Your task to perform on an android device: open sync settings in chrome Image 0: 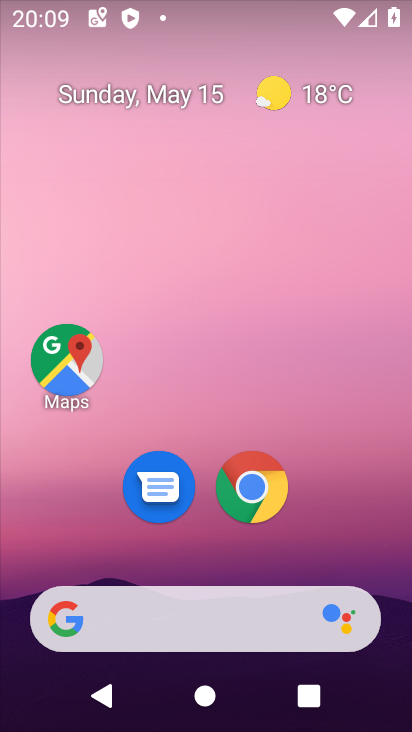
Step 0: click (256, 491)
Your task to perform on an android device: open sync settings in chrome Image 1: 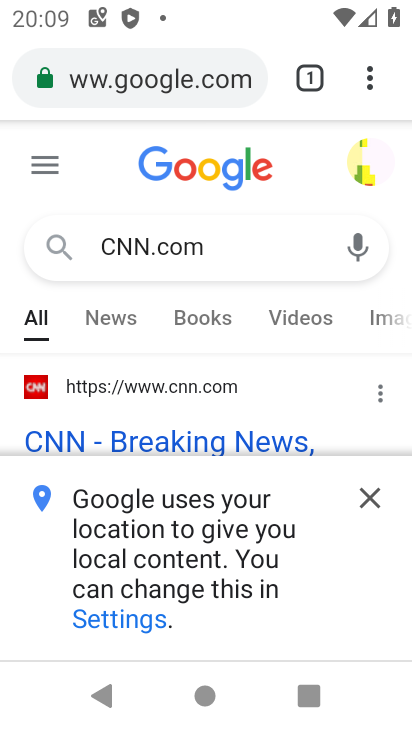
Step 1: click (369, 79)
Your task to perform on an android device: open sync settings in chrome Image 2: 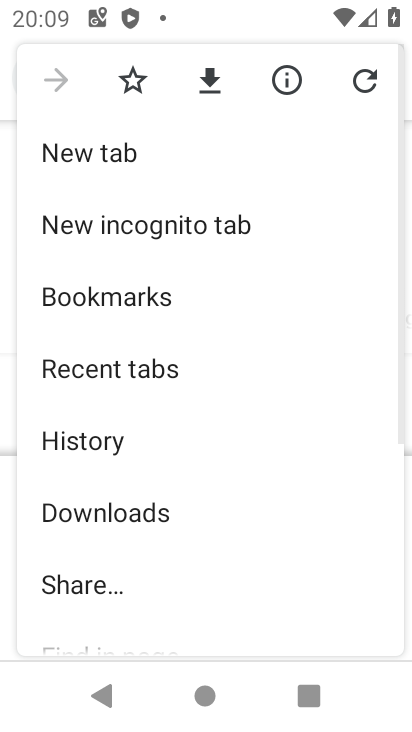
Step 2: drag from (261, 576) to (224, 359)
Your task to perform on an android device: open sync settings in chrome Image 3: 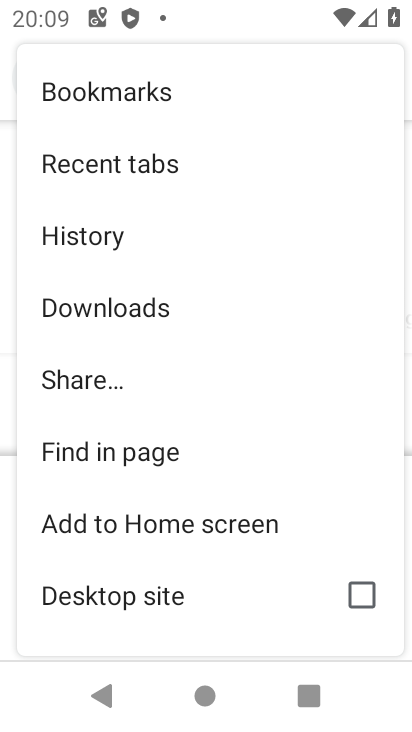
Step 3: drag from (295, 557) to (293, 379)
Your task to perform on an android device: open sync settings in chrome Image 4: 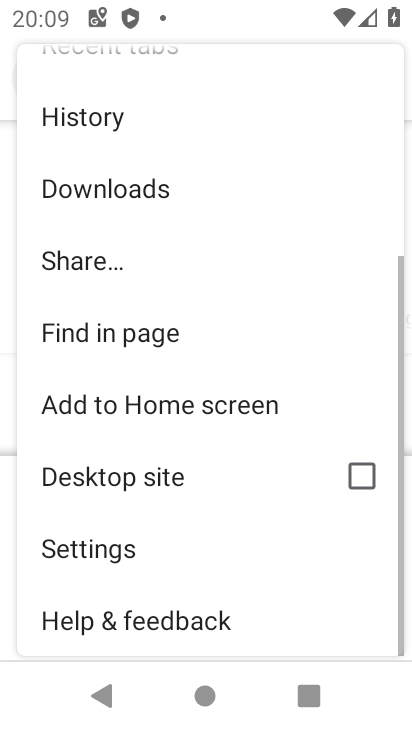
Step 4: click (109, 552)
Your task to perform on an android device: open sync settings in chrome Image 5: 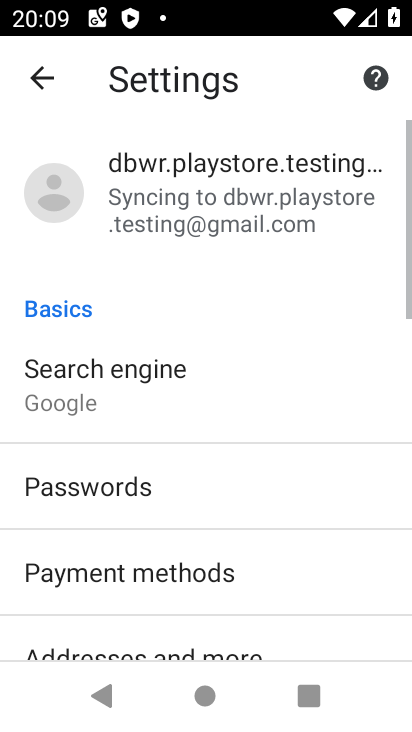
Step 5: drag from (320, 626) to (317, 307)
Your task to perform on an android device: open sync settings in chrome Image 6: 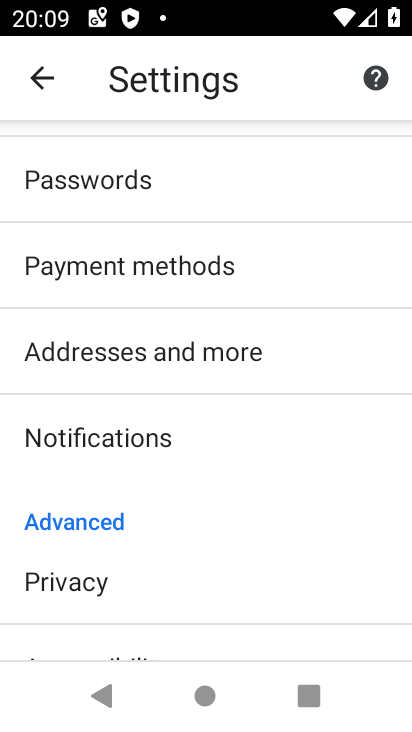
Step 6: drag from (327, 596) to (302, 321)
Your task to perform on an android device: open sync settings in chrome Image 7: 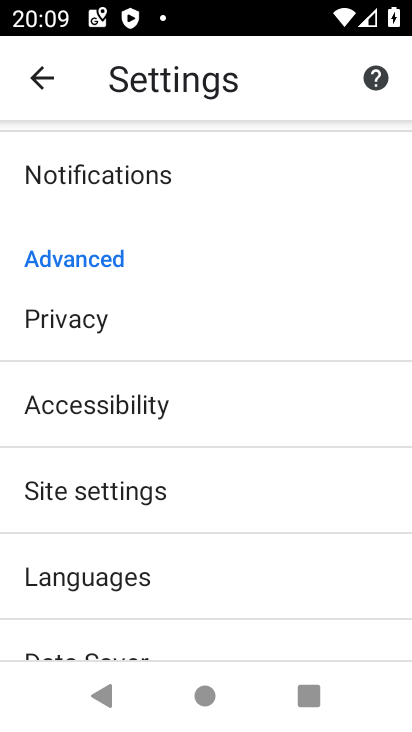
Step 7: drag from (293, 582) to (290, 329)
Your task to perform on an android device: open sync settings in chrome Image 8: 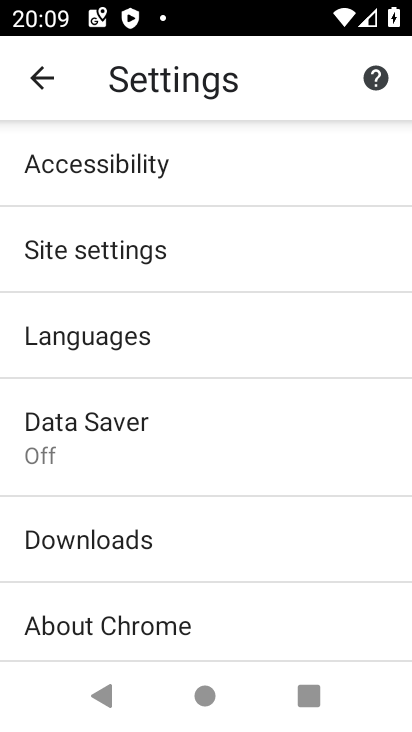
Step 8: click (85, 246)
Your task to perform on an android device: open sync settings in chrome Image 9: 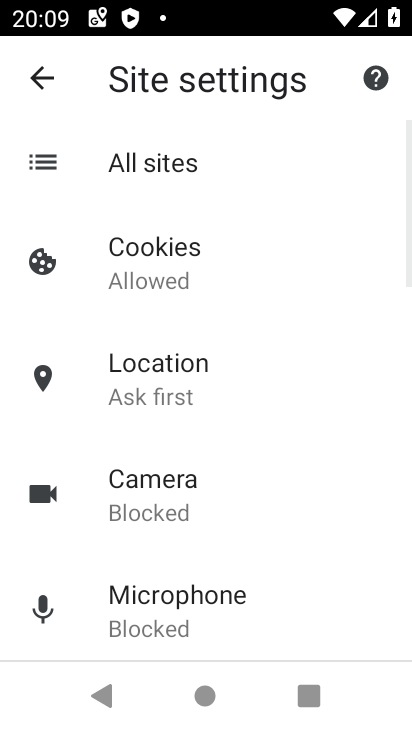
Step 9: drag from (312, 603) to (306, 273)
Your task to perform on an android device: open sync settings in chrome Image 10: 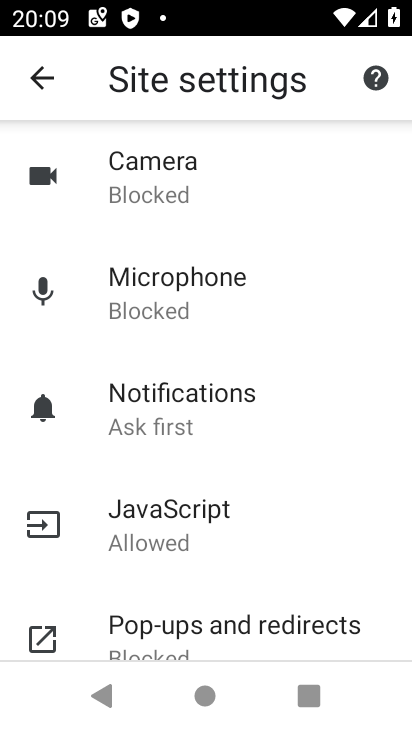
Step 10: drag from (309, 568) to (291, 318)
Your task to perform on an android device: open sync settings in chrome Image 11: 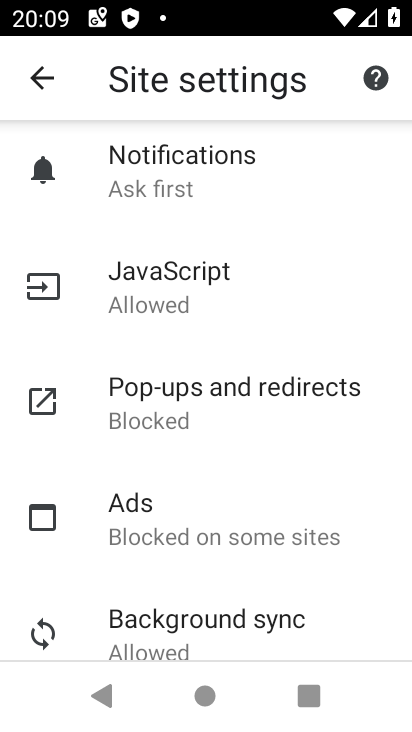
Step 11: click (165, 621)
Your task to perform on an android device: open sync settings in chrome Image 12: 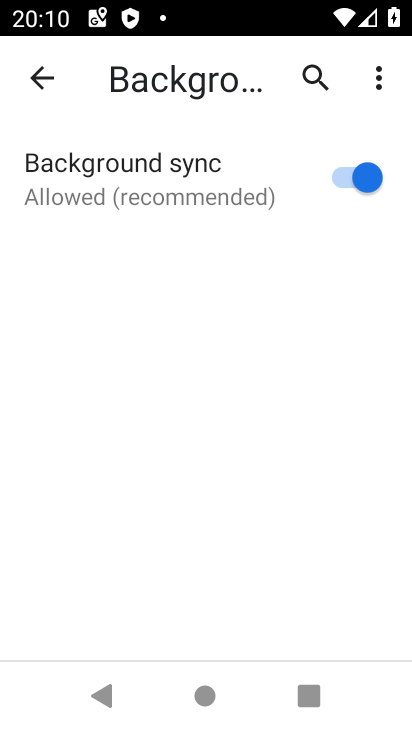
Step 12: task complete